Your task to perform on an android device: Go to eBay Image 0: 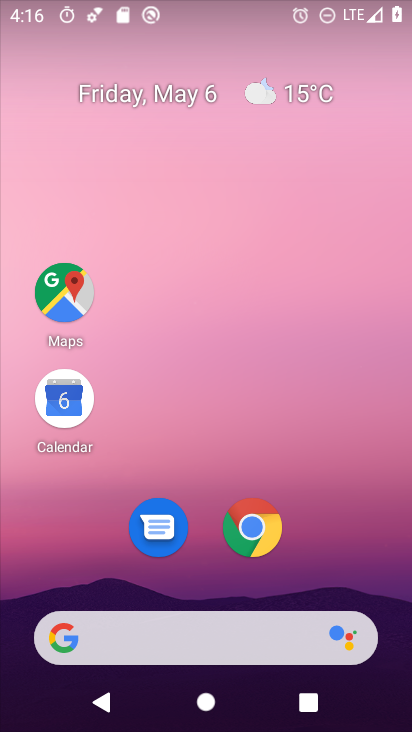
Step 0: drag from (341, 528) to (311, 49)
Your task to perform on an android device: Go to eBay Image 1: 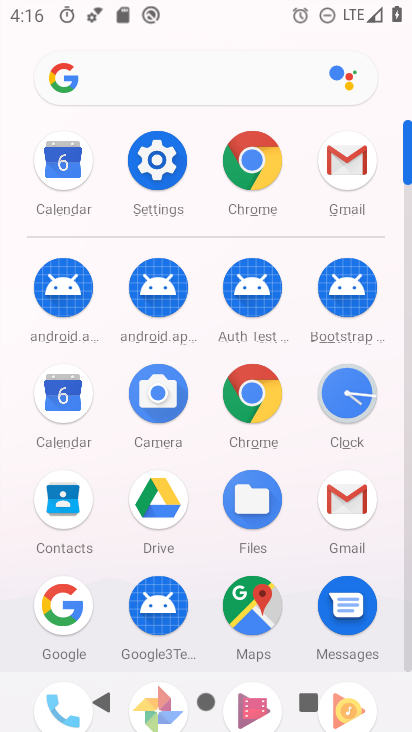
Step 1: click (249, 386)
Your task to perform on an android device: Go to eBay Image 2: 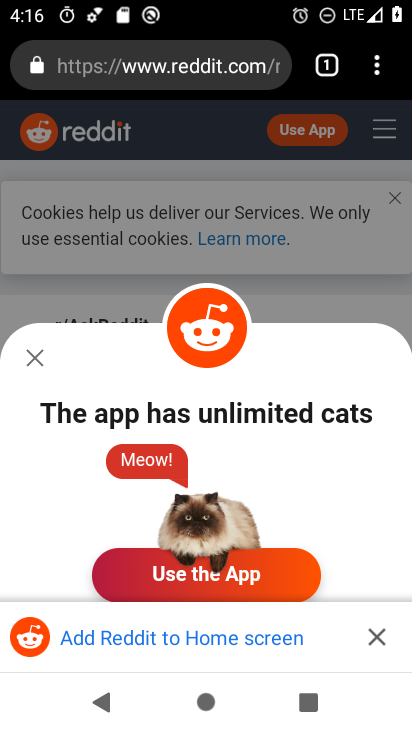
Step 2: click (243, 68)
Your task to perform on an android device: Go to eBay Image 3: 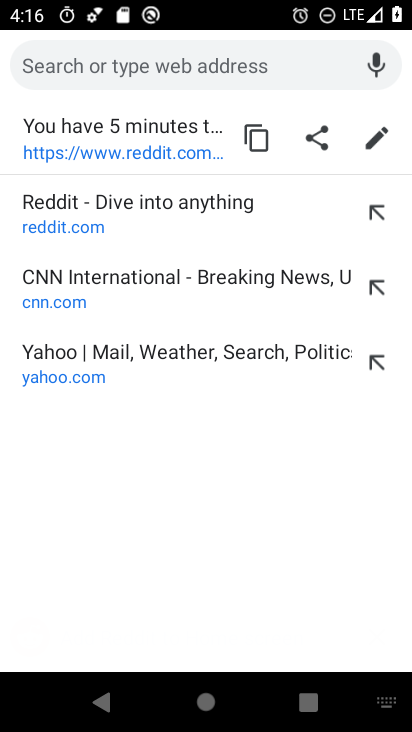
Step 3: type "ebay"
Your task to perform on an android device: Go to eBay Image 4: 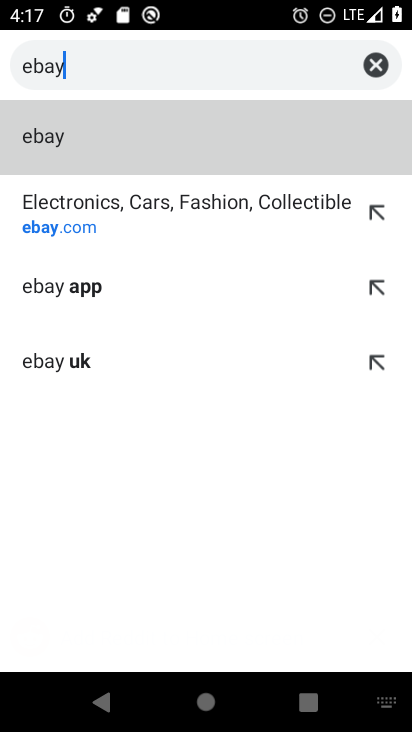
Step 4: click (51, 207)
Your task to perform on an android device: Go to eBay Image 5: 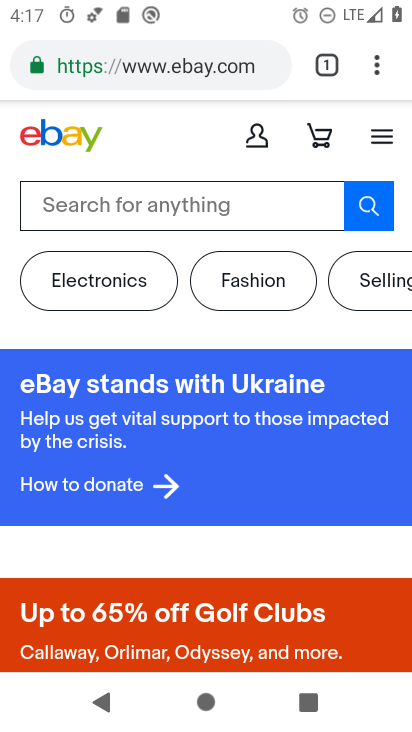
Step 5: task complete